Your task to perform on an android device: open wifi settings Image 0: 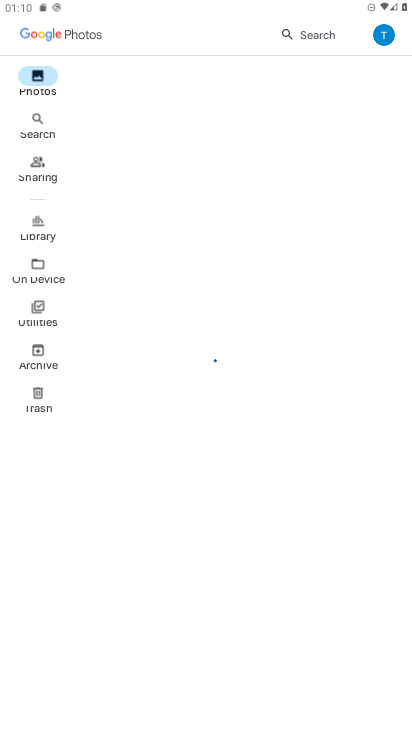
Step 0: press home button
Your task to perform on an android device: open wifi settings Image 1: 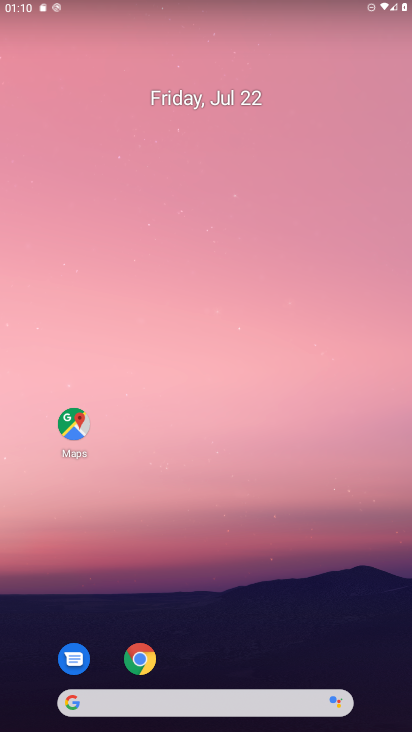
Step 1: drag from (195, 691) to (172, 257)
Your task to perform on an android device: open wifi settings Image 2: 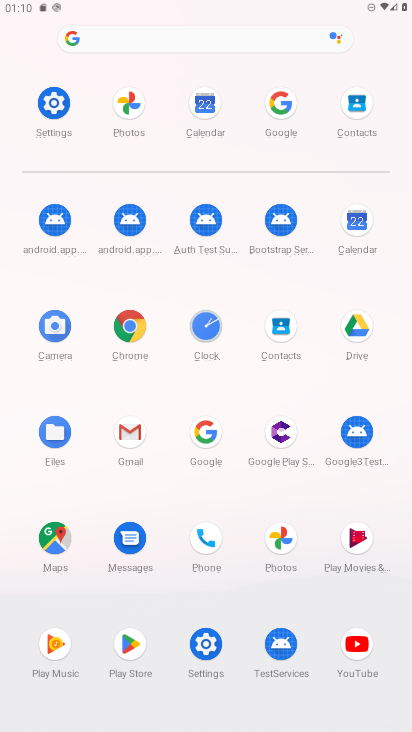
Step 2: click (57, 105)
Your task to perform on an android device: open wifi settings Image 3: 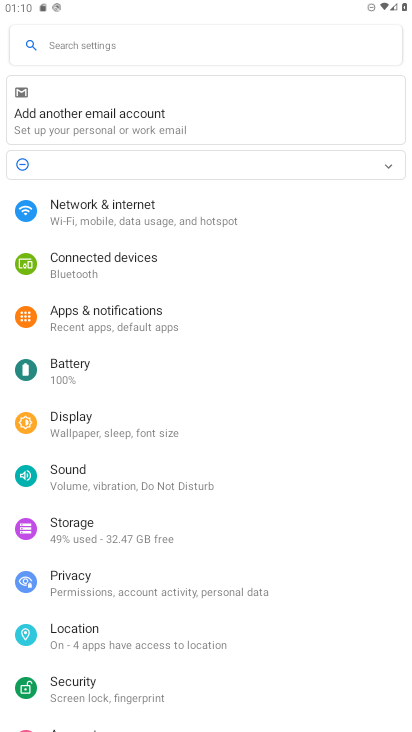
Step 3: click (116, 215)
Your task to perform on an android device: open wifi settings Image 4: 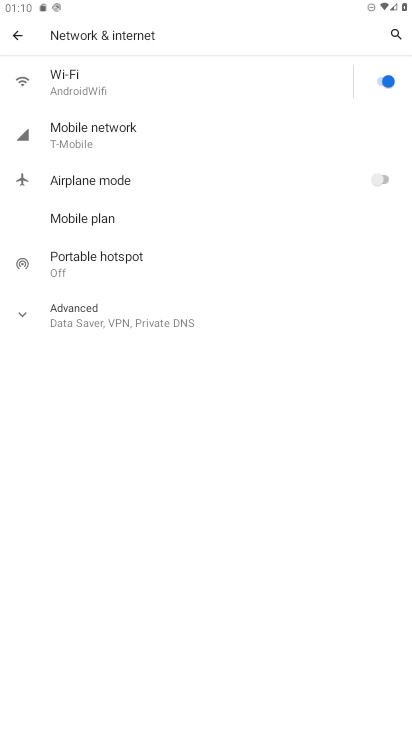
Step 4: click (55, 82)
Your task to perform on an android device: open wifi settings Image 5: 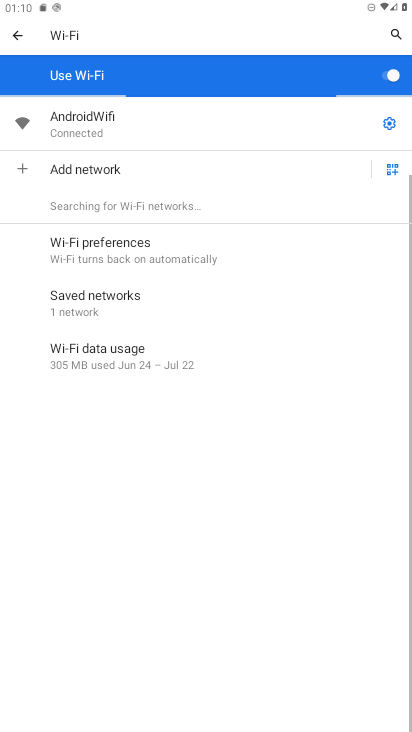
Step 5: click (391, 125)
Your task to perform on an android device: open wifi settings Image 6: 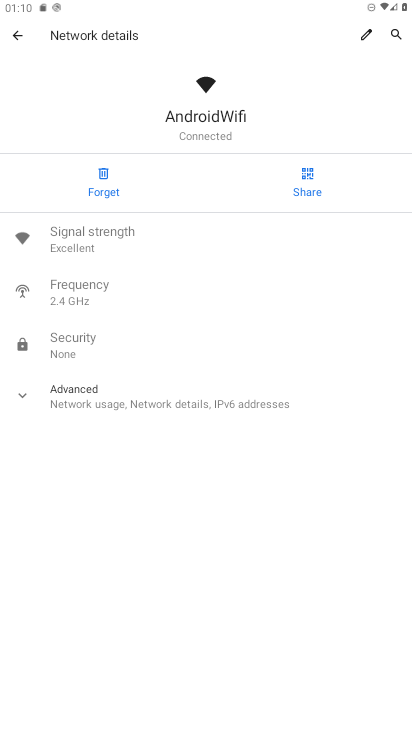
Step 6: task complete